Your task to perform on an android device: What's on my calendar tomorrow? Image 0: 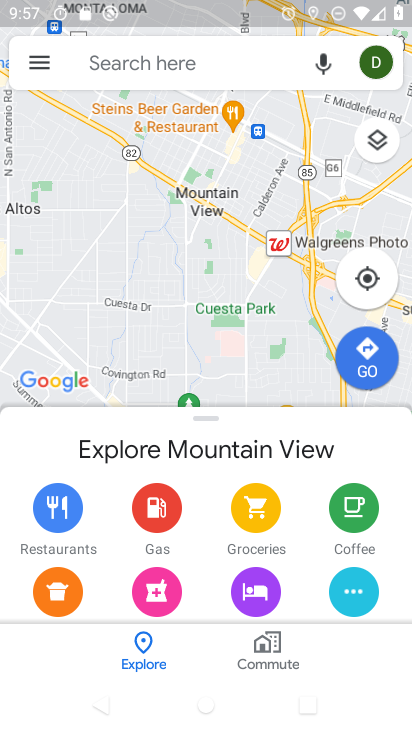
Step 0: press home button
Your task to perform on an android device: What's on my calendar tomorrow? Image 1: 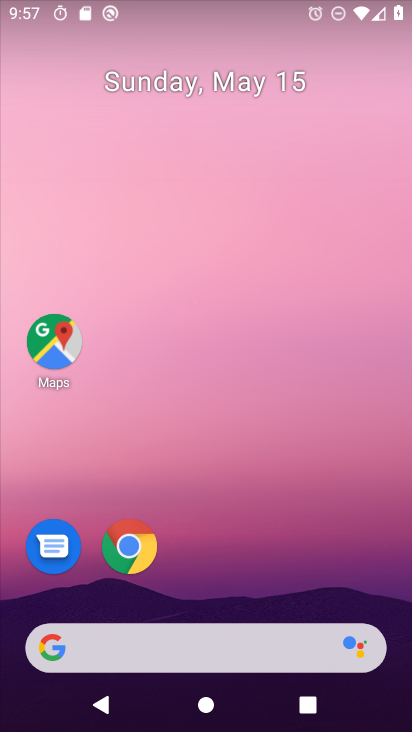
Step 1: drag from (254, 510) to (248, 64)
Your task to perform on an android device: What's on my calendar tomorrow? Image 2: 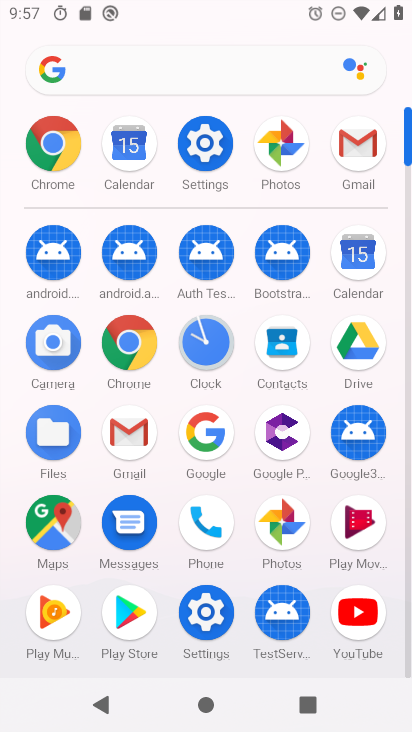
Step 2: click (125, 150)
Your task to perform on an android device: What's on my calendar tomorrow? Image 3: 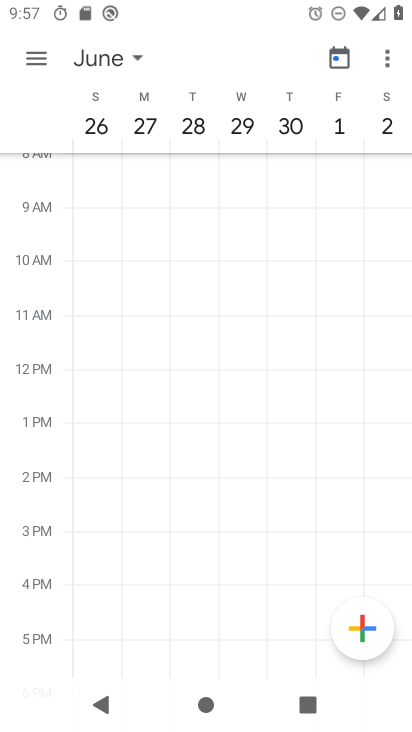
Step 3: click (37, 55)
Your task to perform on an android device: What's on my calendar tomorrow? Image 4: 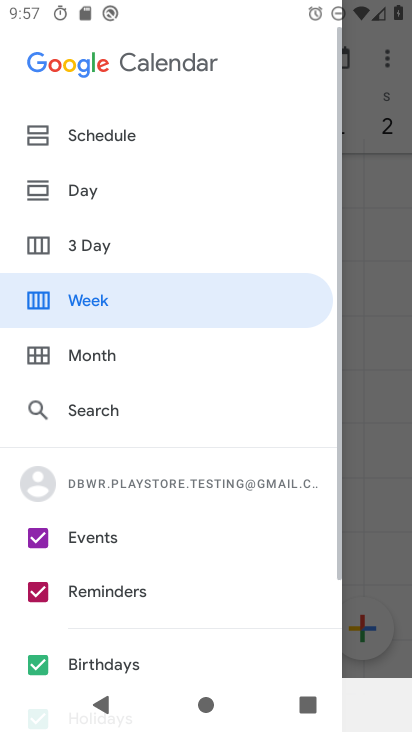
Step 4: click (77, 340)
Your task to perform on an android device: What's on my calendar tomorrow? Image 5: 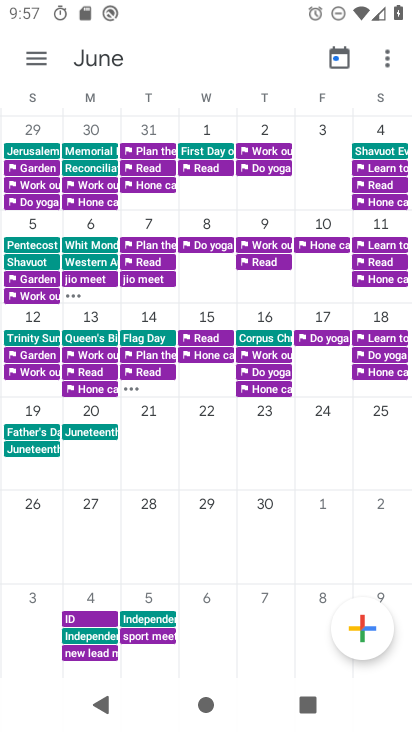
Step 5: drag from (79, 324) to (403, 378)
Your task to perform on an android device: What's on my calendar tomorrow? Image 6: 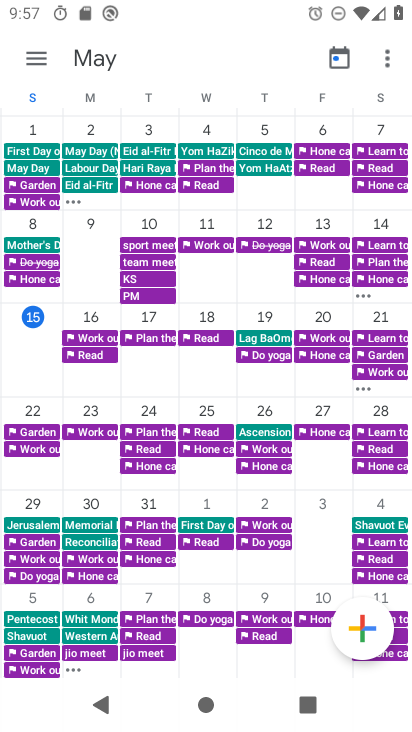
Step 6: click (86, 312)
Your task to perform on an android device: What's on my calendar tomorrow? Image 7: 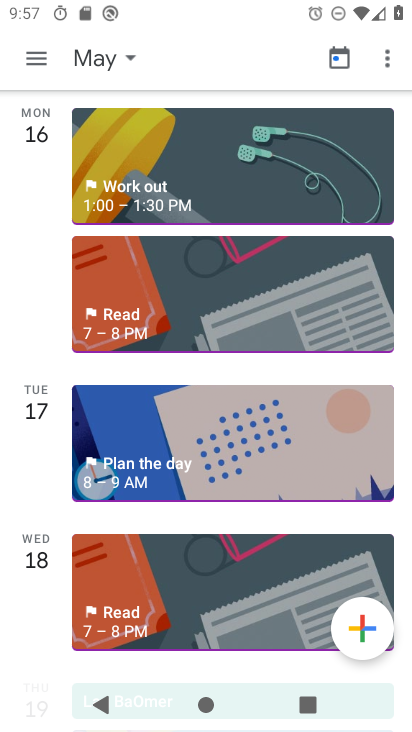
Step 7: task complete